Your task to perform on an android device: open sync settings in chrome Image 0: 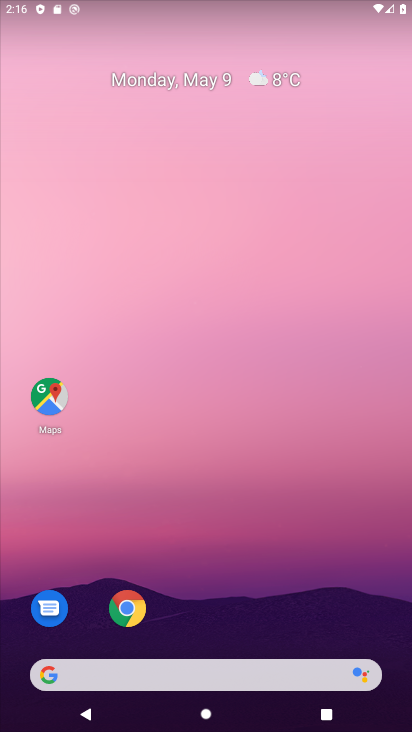
Step 0: click (123, 603)
Your task to perform on an android device: open sync settings in chrome Image 1: 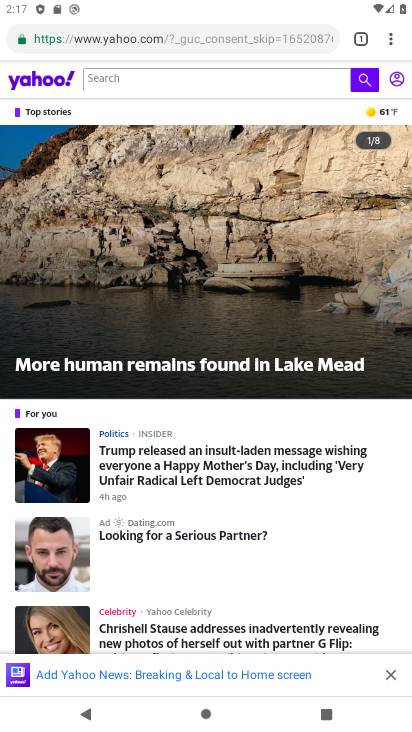
Step 1: click (392, 38)
Your task to perform on an android device: open sync settings in chrome Image 2: 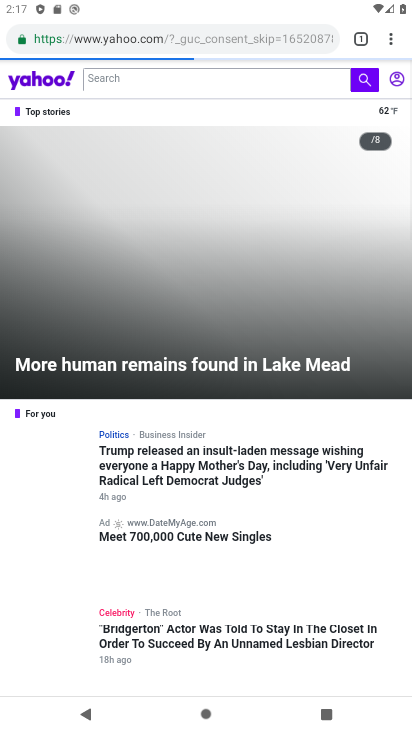
Step 2: click (392, 38)
Your task to perform on an android device: open sync settings in chrome Image 3: 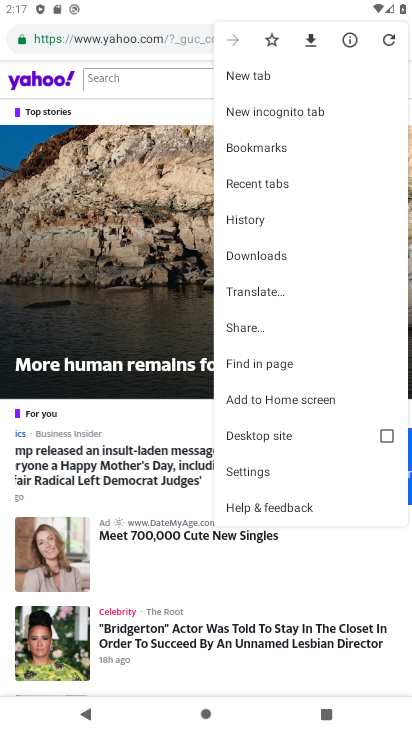
Step 3: click (269, 474)
Your task to perform on an android device: open sync settings in chrome Image 4: 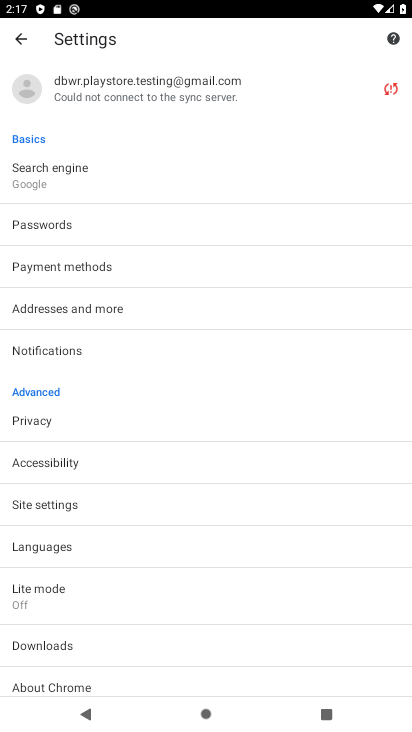
Step 4: click (139, 86)
Your task to perform on an android device: open sync settings in chrome Image 5: 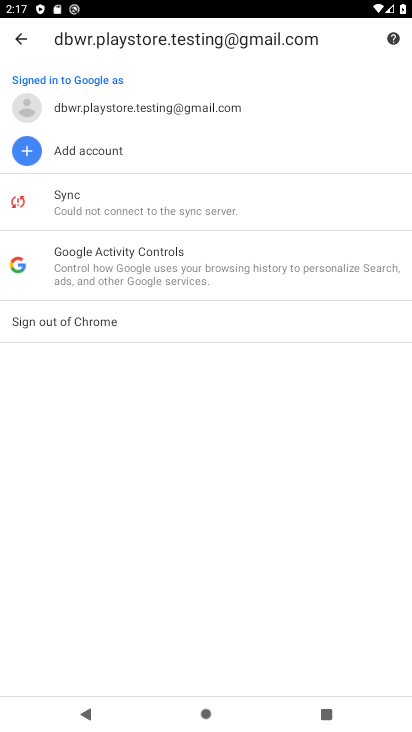
Step 5: click (151, 209)
Your task to perform on an android device: open sync settings in chrome Image 6: 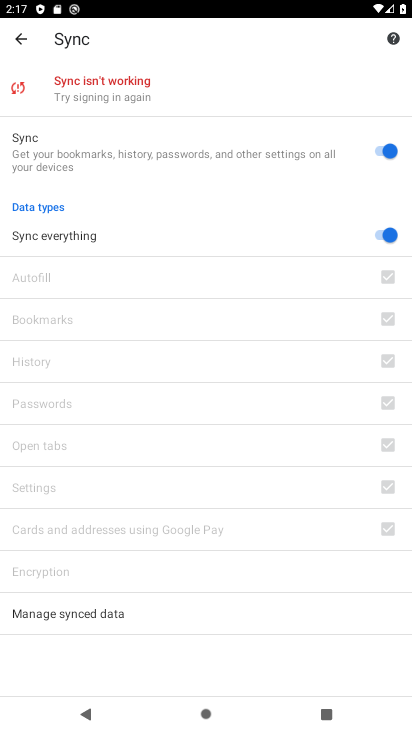
Step 6: task complete